Your task to perform on an android device: turn off improve location accuracy Image 0: 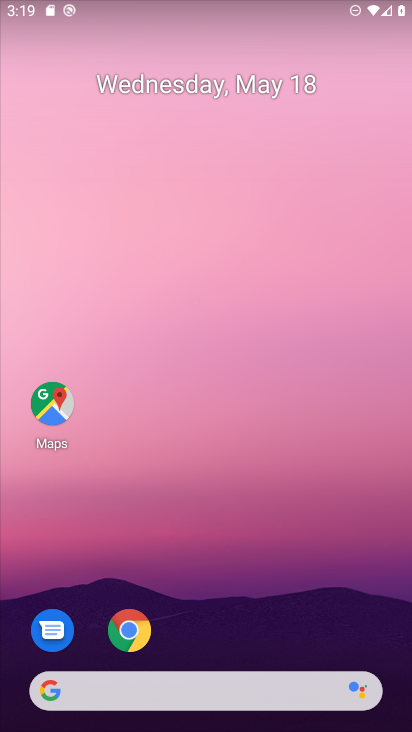
Step 0: press home button
Your task to perform on an android device: turn off improve location accuracy Image 1: 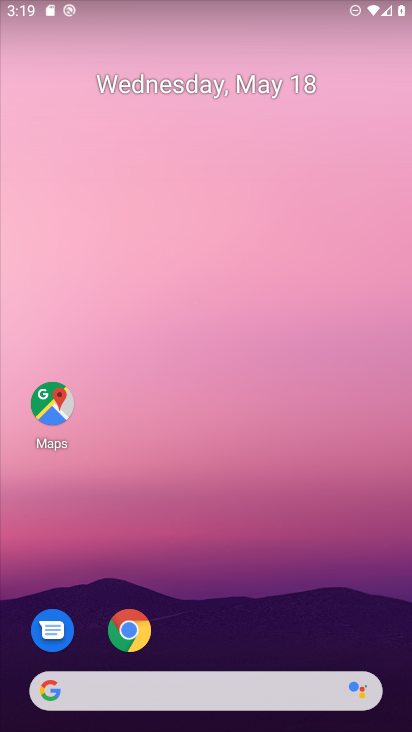
Step 1: drag from (196, 624) to (203, 413)
Your task to perform on an android device: turn off improve location accuracy Image 2: 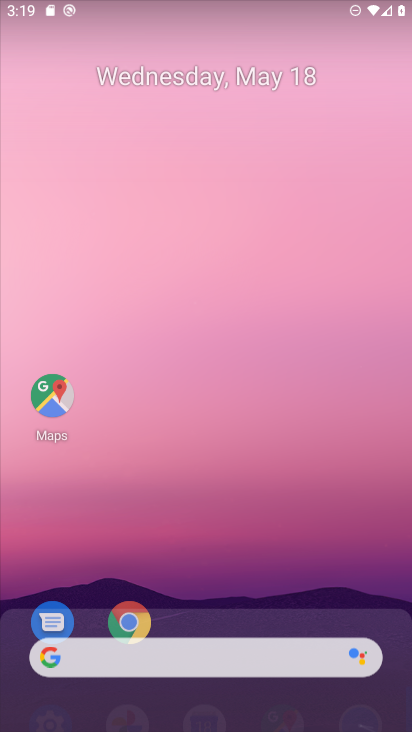
Step 2: drag from (212, 129) to (213, 81)
Your task to perform on an android device: turn off improve location accuracy Image 3: 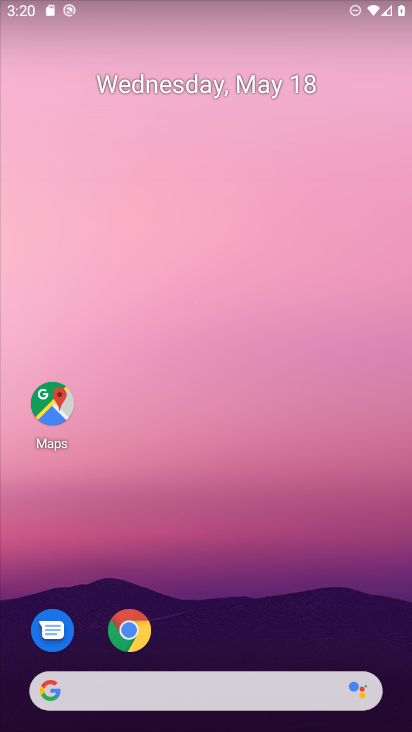
Step 3: drag from (213, 635) to (276, 234)
Your task to perform on an android device: turn off improve location accuracy Image 4: 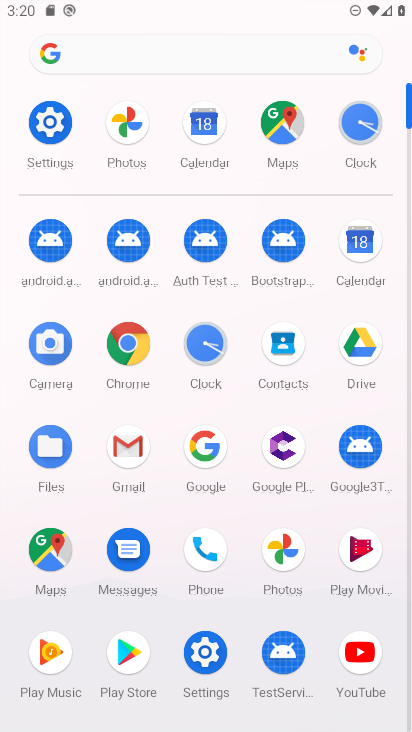
Step 4: click (211, 648)
Your task to perform on an android device: turn off improve location accuracy Image 5: 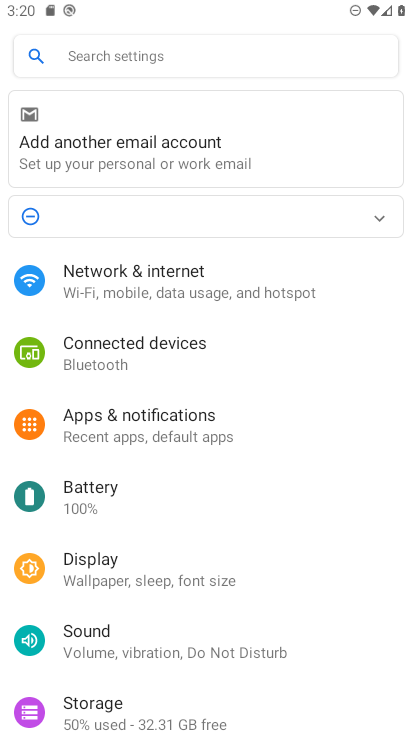
Step 5: drag from (157, 653) to (227, 188)
Your task to perform on an android device: turn off improve location accuracy Image 6: 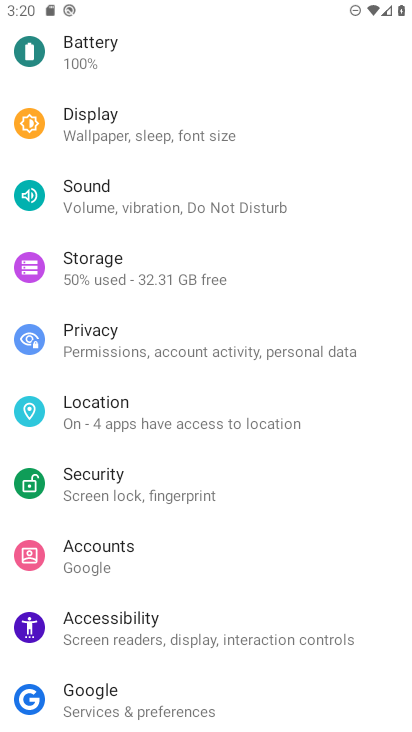
Step 6: click (131, 408)
Your task to perform on an android device: turn off improve location accuracy Image 7: 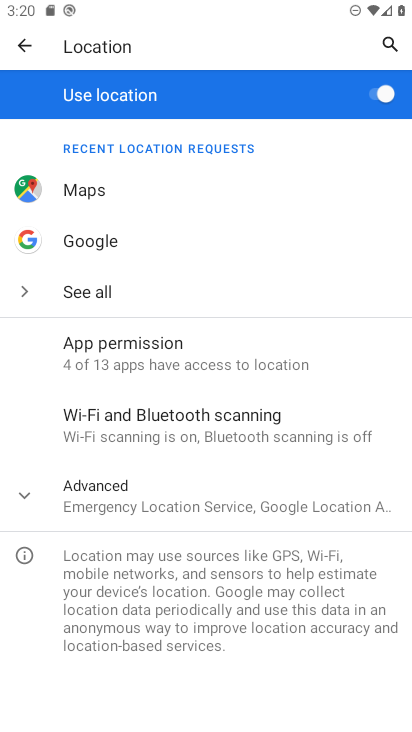
Step 7: click (52, 491)
Your task to perform on an android device: turn off improve location accuracy Image 8: 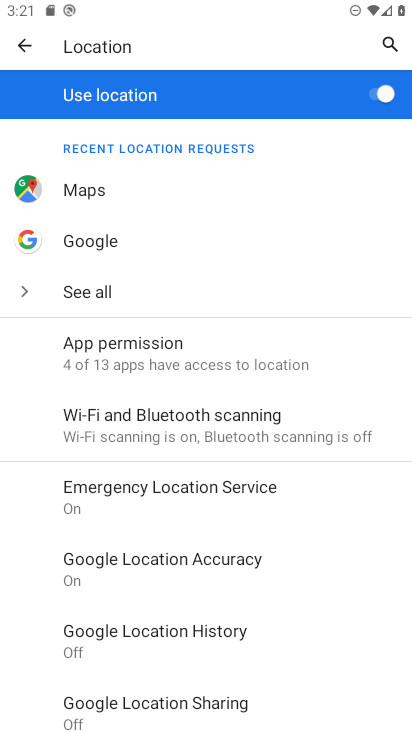
Step 8: click (164, 574)
Your task to perform on an android device: turn off improve location accuracy Image 9: 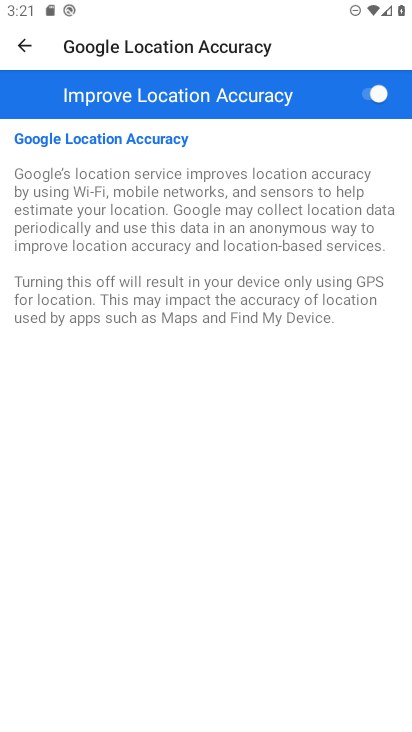
Step 9: click (372, 99)
Your task to perform on an android device: turn off improve location accuracy Image 10: 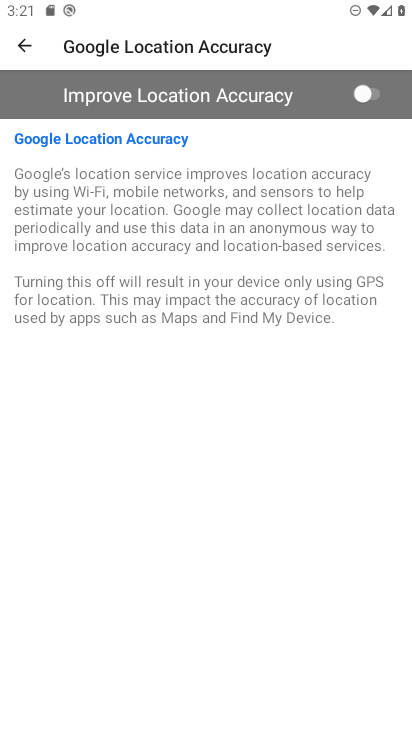
Step 10: task complete